Your task to perform on an android device: Open calendar and show me the first week of next month Image 0: 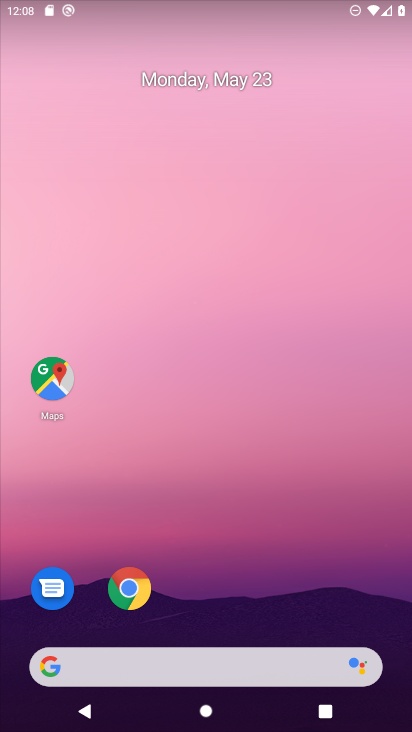
Step 0: drag from (281, 687) to (262, 154)
Your task to perform on an android device: Open calendar and show me the first week of next month Image 1: 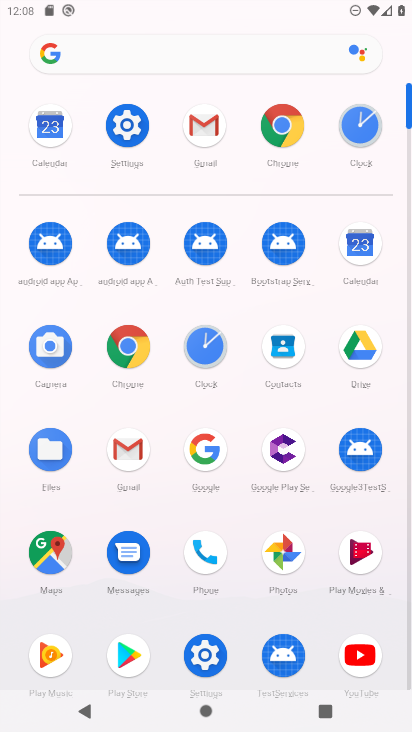
Step 1: click (348, 253)
Your task to perform on an android device: Open calendar and show me the first week of next month Image 2: 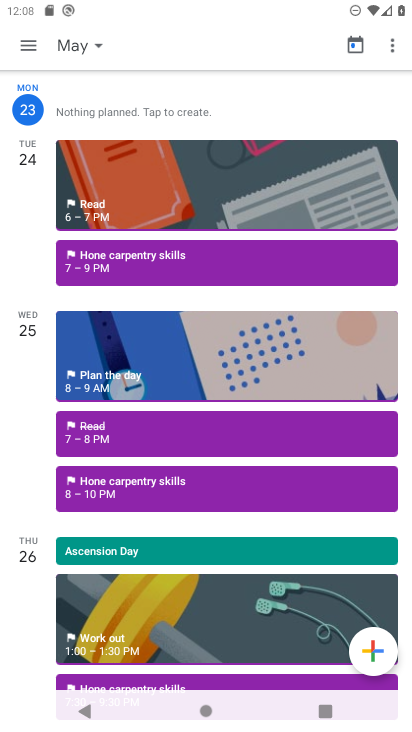
Step 2: click (43, 44)
Your task to perform on an android device: Open calendar and show me the first week of next month Image 3: 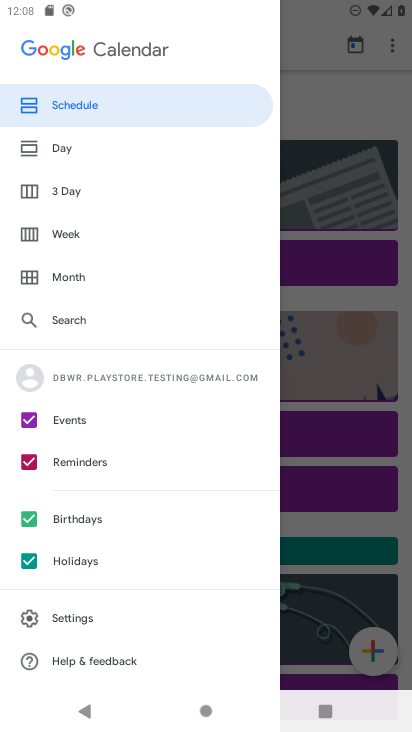
Step 3: click (74, 280)
Your task to perform on an android device: Open calendar and show me the first week of next month Image 4: 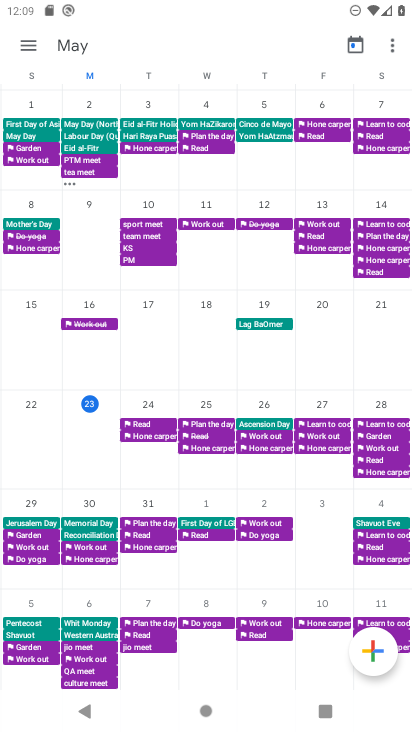
Step 4: drag from (381, 381) to (5, 399)
Your task to perform on an android device: Open calendar and show me the first week of next month Image 5: 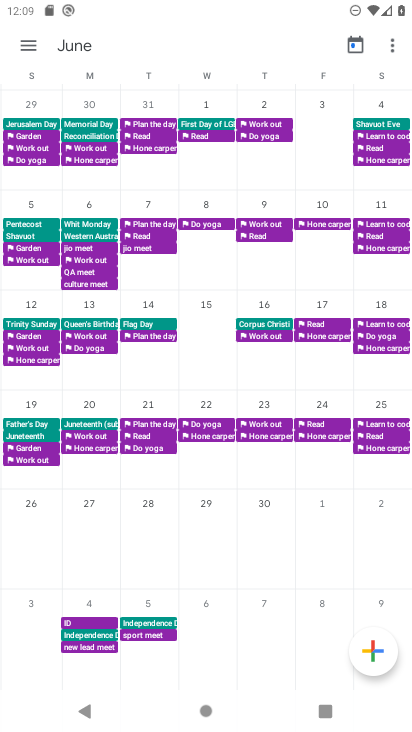
Step 5: click (203, 117)
Your task to perform on an android device: Open calendar and show me the first week of next month Image 6: 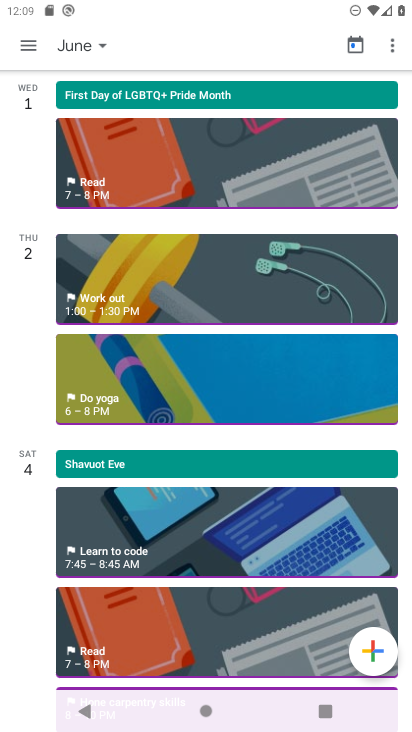
Step 6: task complete